Your task to perform on an android device: Open settings Image 0: 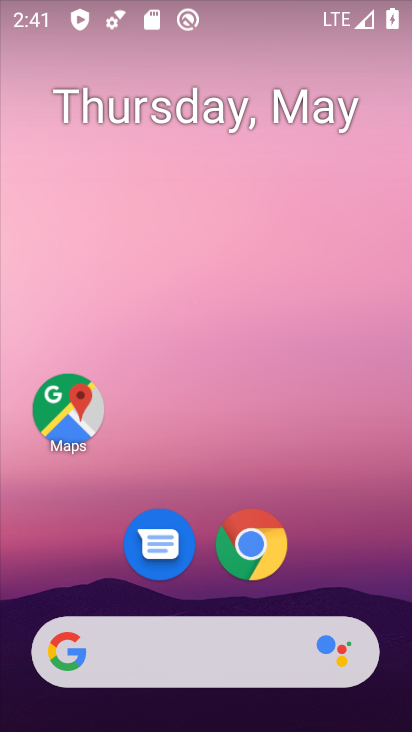
Step 0: drag from (269, 687) to (212, 132)
Your task to perform on an android device: Open settings Image 1: 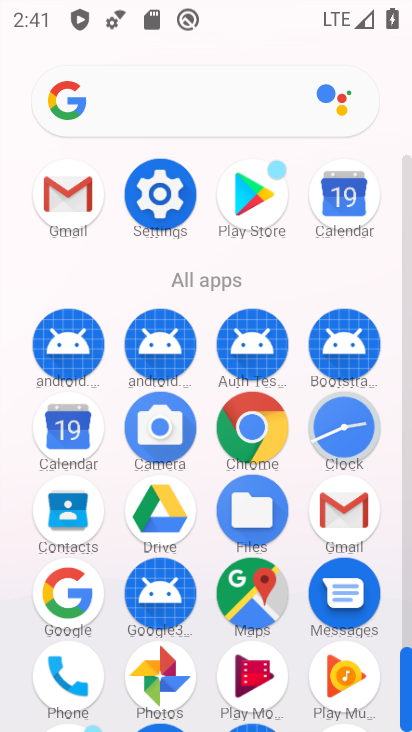
Step 1: click (157, 196)
Your task to perform on an android device: Open settings Image 2: 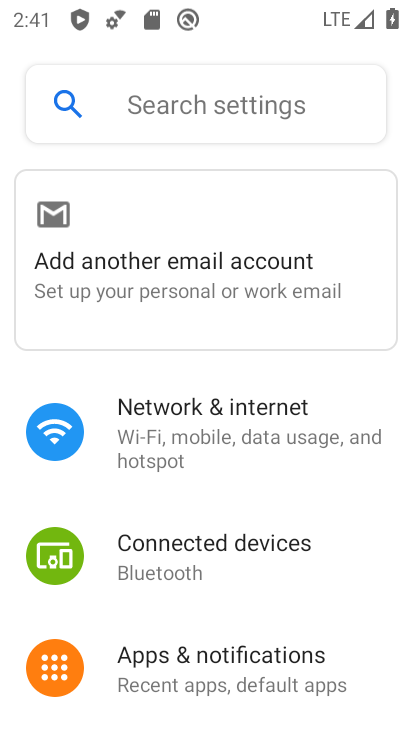
Step 2: task complete